Your task to perform on an android device: delete the emails in spam in the gmail app Image 0: 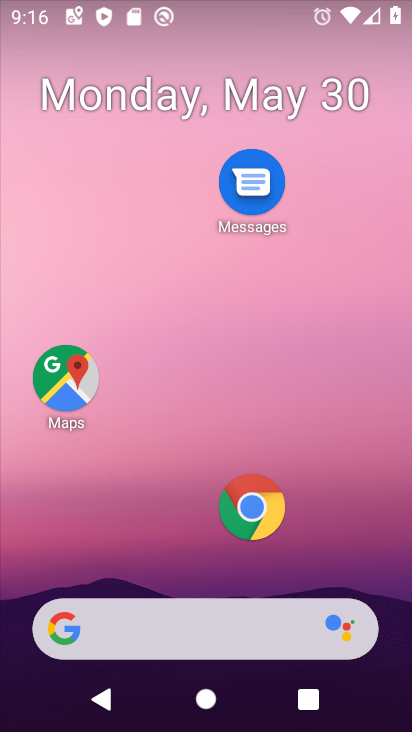
Step 0: drag from (149, 556) to (161, 80)
Your task to perform on an android device: delete the emails in spam in the gmail app Image 1: 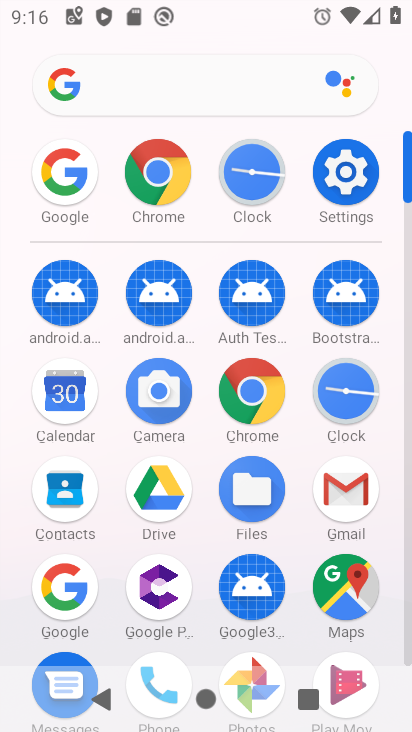
Step 1: click (349, 526)
Your task to perform on an android device: delete the emails in spam in the gmail app Image 2: 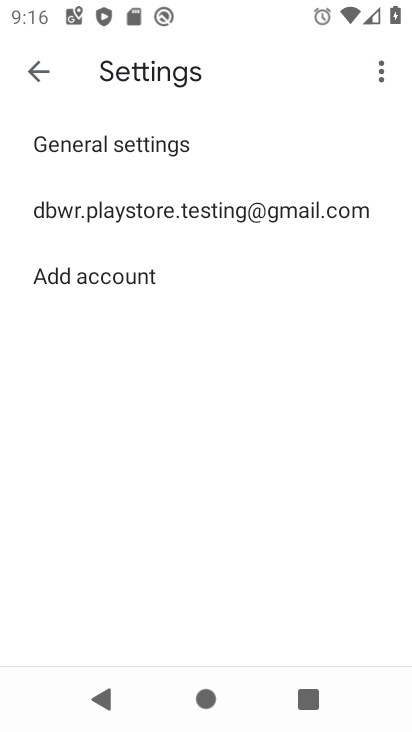
Step 2: click (208, 213)
Your task to perform on an android device: delete the emails in spam in the gmail app Image 3: 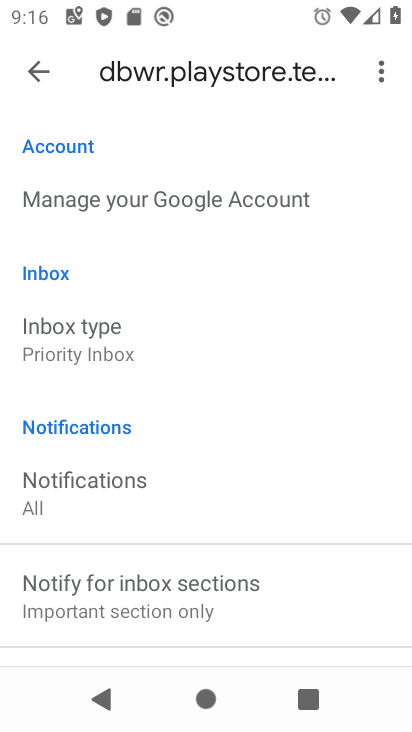
Step 3: click (37, 56)
Your task to perform on an android device: delete the emails in spam in the gmail app Image 4: 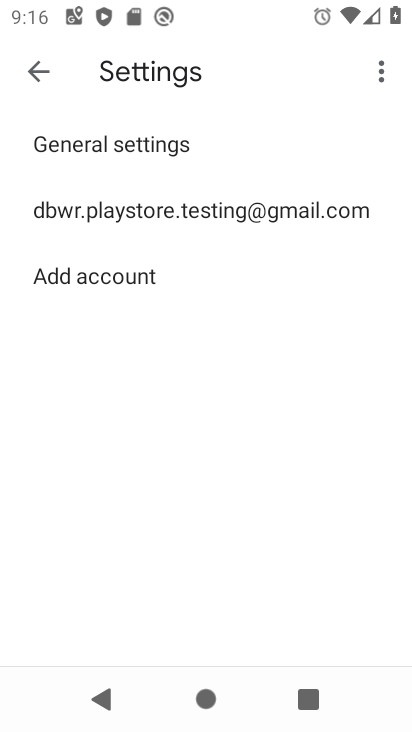
Step 4: click (37, 58)
Your task to perform on an android device: delete the emails in spam in the gmail app Image 5: 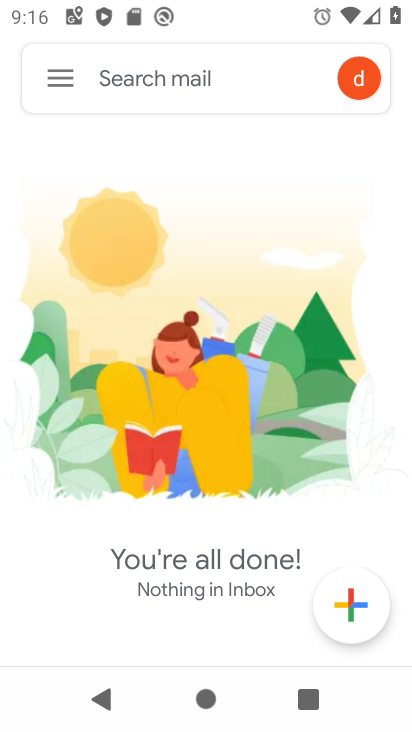
Step 5: click (60, 80)
Your task to perform on an android device: delete the emails in spam in the gmail app Image 6: 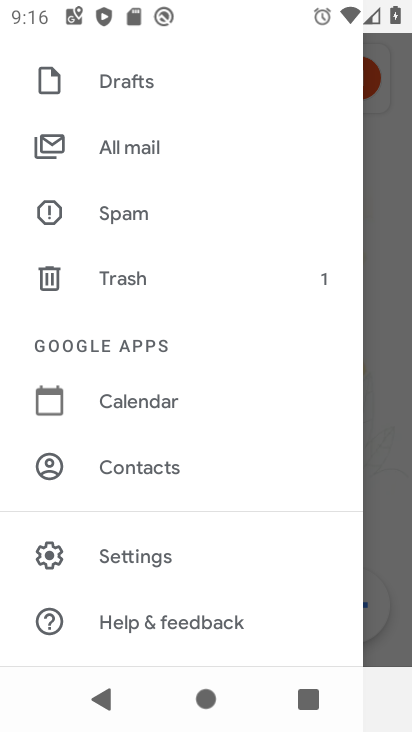
Step 6: click (128, 148)
Your task to perform on an android device: delete the emails in spam in the gmail app Image 7: 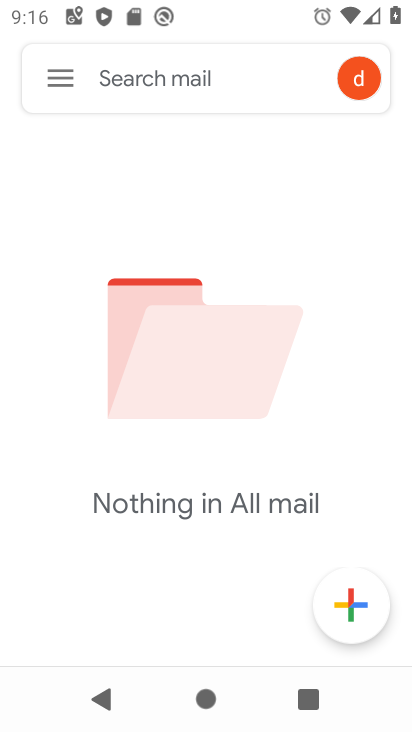
Step 7: task complete